Your task to perform on an android device: turn off location Image 0: 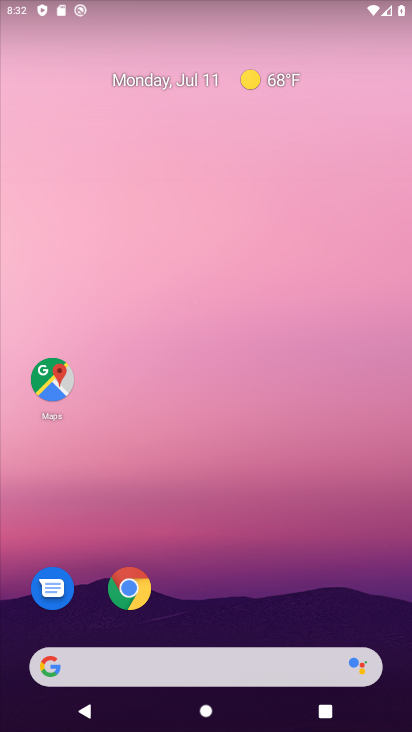
Step 0: drag from (203, 641) to (208, 37)
Your task to perform on an android device: turn off location Image 1: 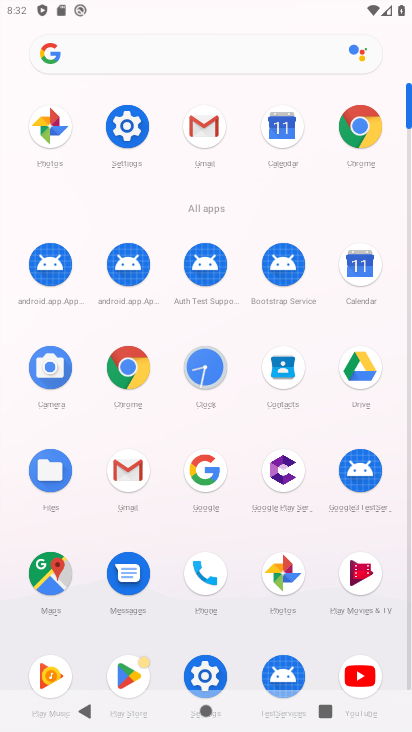
Step 1: click (111, 134)
Your task to perform on an android device: turn off location Image 2: 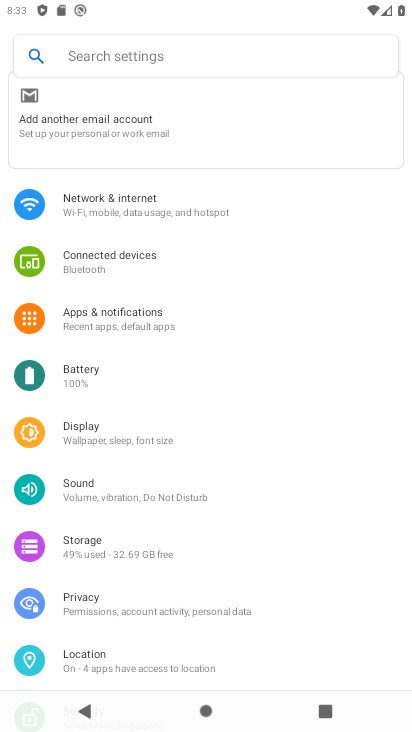
Step 2: click (97, 663)
Your task to perform on an android device: turn off location Image 3: 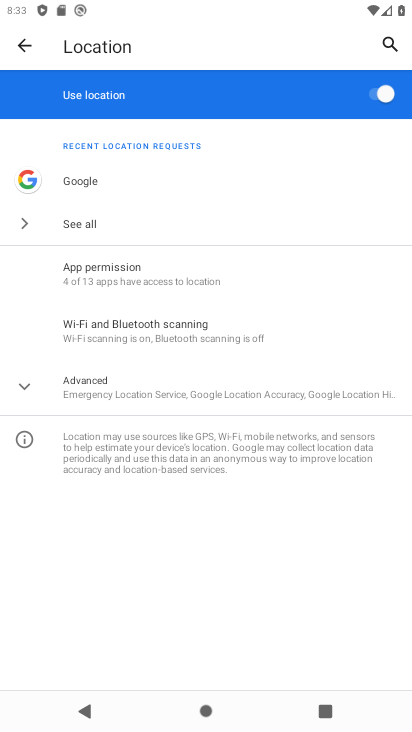
Step 3: click (371, 96)
Your task to perform on an android device: turn off location Image 4: 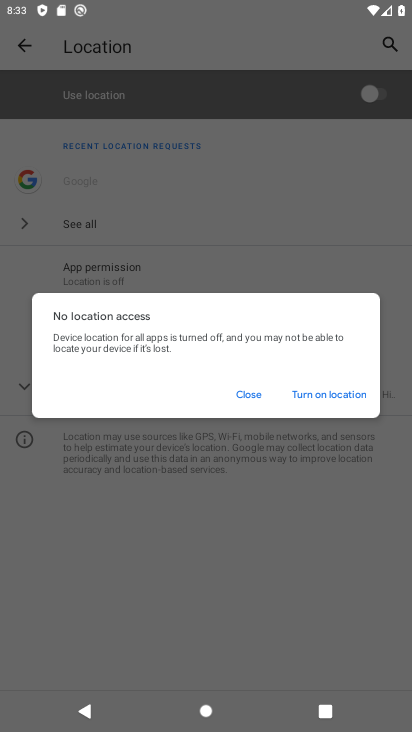
Step 4: task complete